Your task to perform on an android device: toggle priority inbox in the gmail app Image 0: 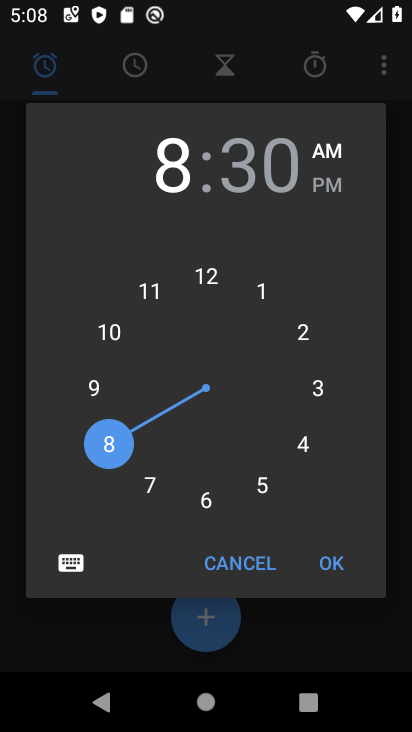
Step 0: press home button
Your task to perform on an android device: toggle priority inbox in the gmail app Image 1: 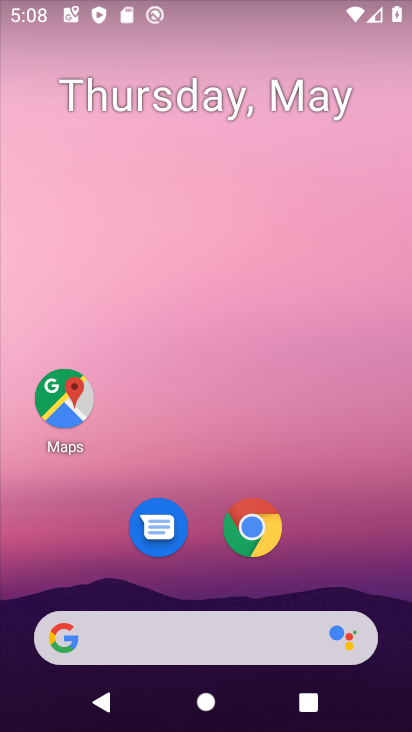
Step 1: drag from (312, 551) to (266, 9)
Your task to perform on an android device: toggle priority inbox in the gmail app Image 2: 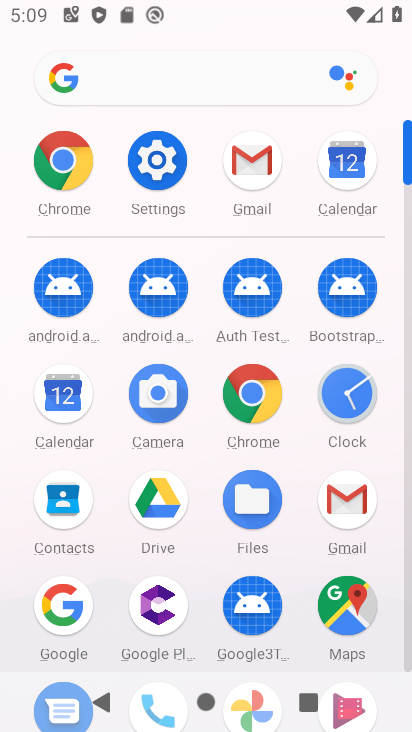
Step 2: click (248, 166)
Your task to perform on an android device: toggle priority inbox in the gmail app Image 3: 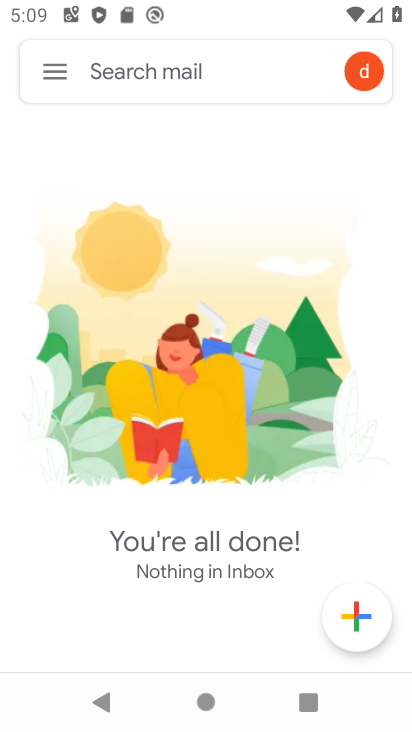
Step 3: click (63, 70)
Your task to perform on an android device: toggle priority inbox in the gmail app Image 4: 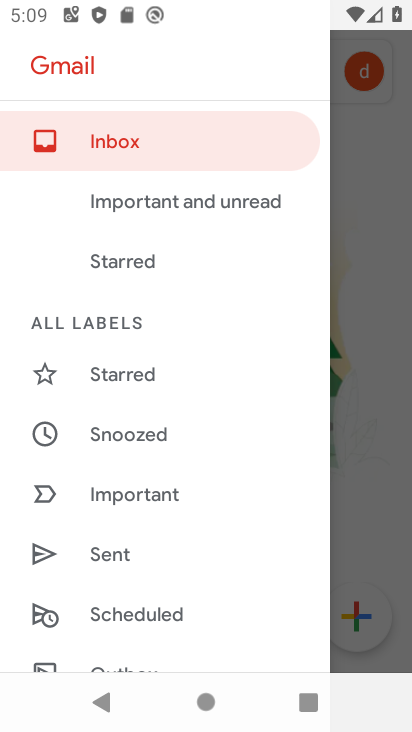
Step 4: drag from (103, 566) to (110, 92)
Your task to perform on an android device: toggle priority inbox in the gmail app Image 5: 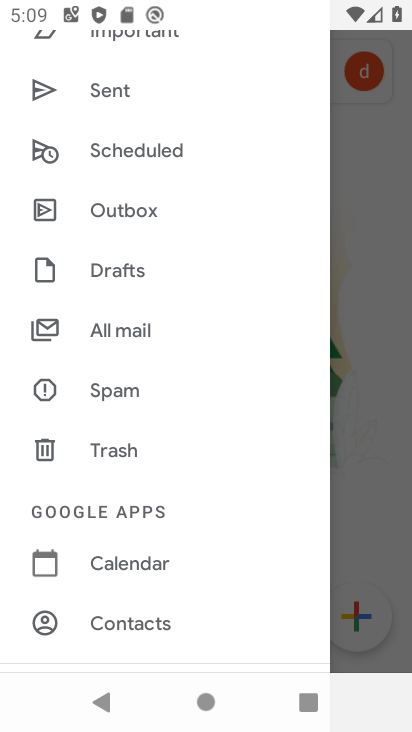
Step 5: drag from (152, 580) to (186, 128)
Your task to perform on an android device: toggle priority inbox in the gmail app Image 6: 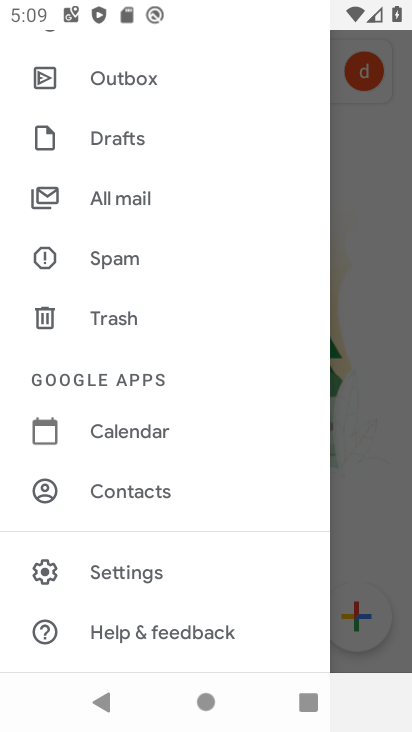
Step 6: click (152, 569)
Your task to perform on an android device: toggle priority inbox in the gmail app Image 7: 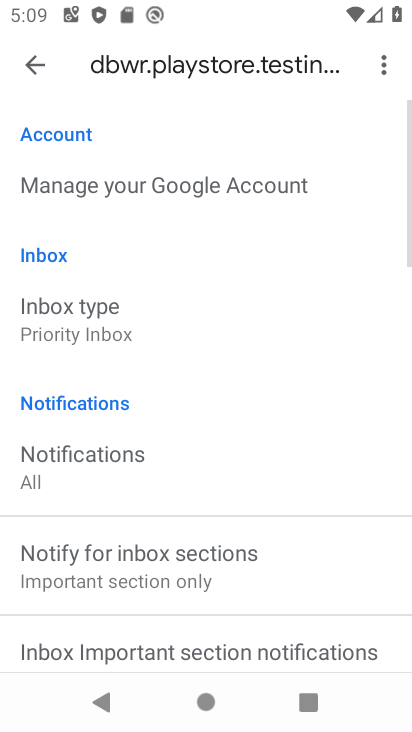
Step 7: click (53, 317)
Your task to perform on an android device: toggle priority inbox in the gmail app Image 8: 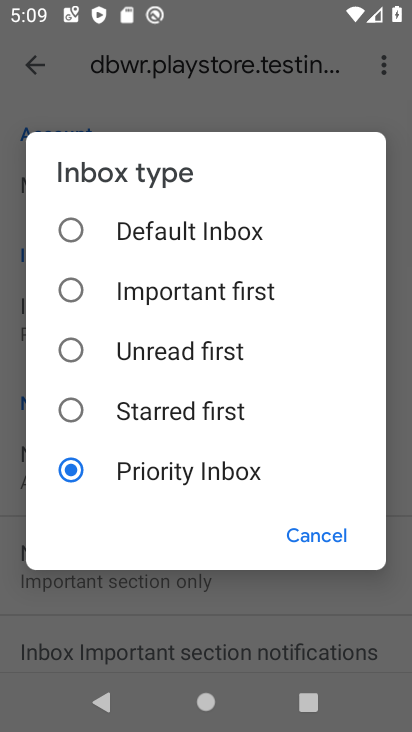
Step 8: click (92, 241)
Your task to perform on an android device: toggle priority inbox in the gmail app Image 9: 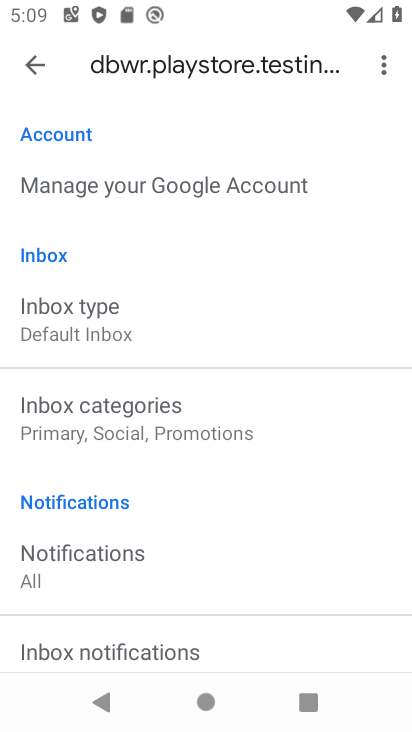
Step 9: task complete